Your task to perform on an android device: change keyboard looks Image 0: 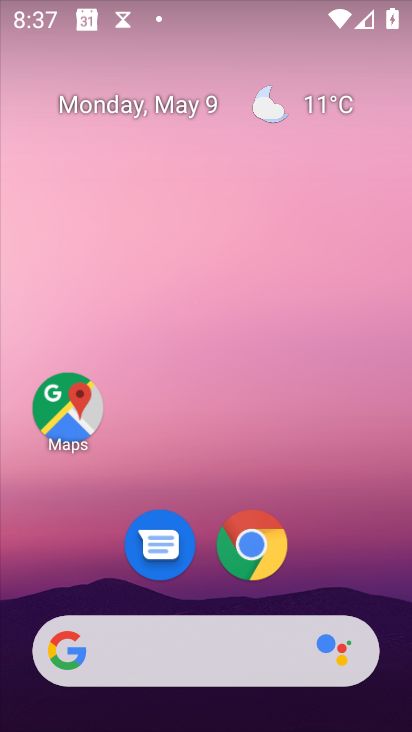
Step 0: drag from (219, 717) to (220, 223)
Your task to perform on an android device: change keyboard looks Image 1: 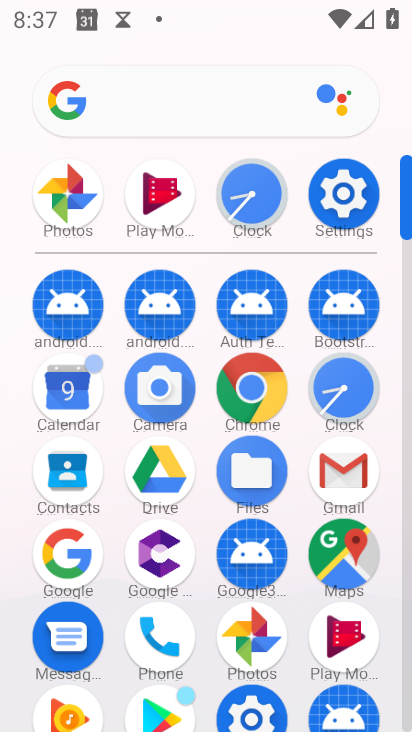
Step 1: click (341, 189)
Your task to perform on an android device: change keyboard looks Image 2: 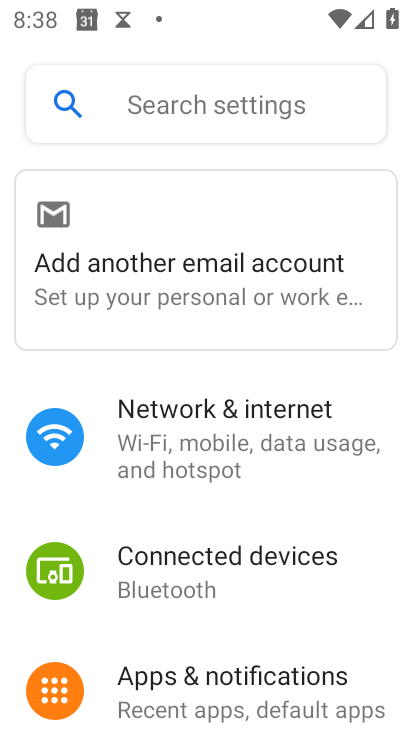
Step 2: drag from (252, 658) to (252, 320)
Your task to perform on an android device: change keyboard looks Image 3: 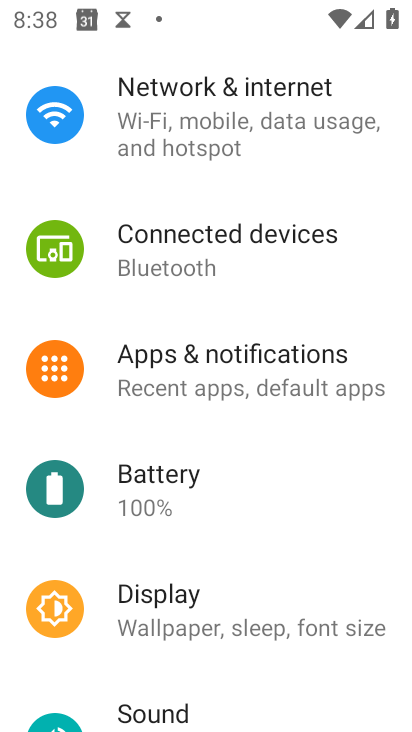
Step 3: drag from (236, 672) to (223, 345)
Your task to perform on an android device: change keyboard looks Image 4: 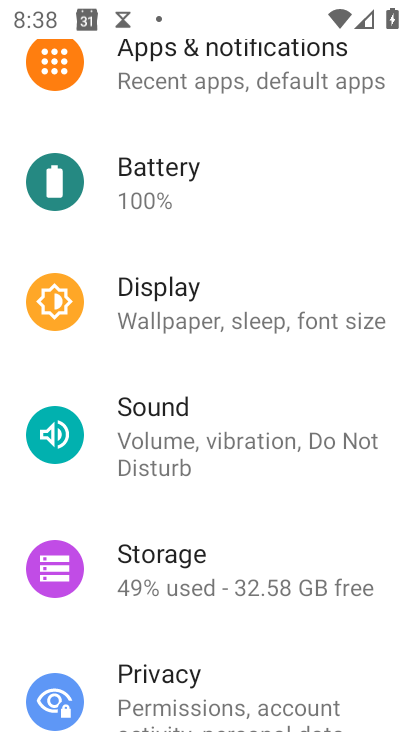
Step 4: drag from (211, 665) to (189, 283)
Your task to perform on an android device: change keyboard looks Image 5: 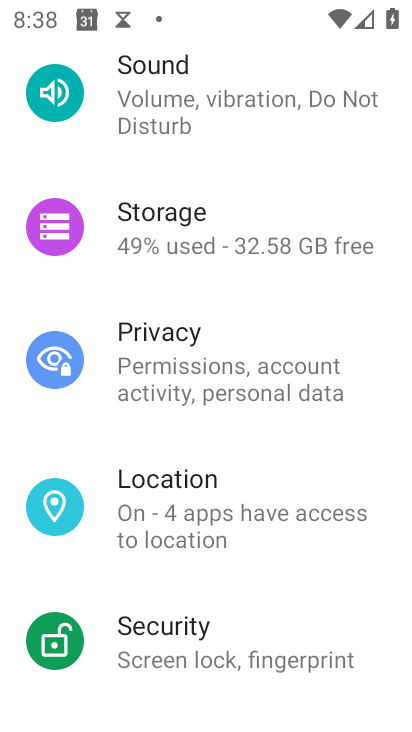
Step 5: drag from (196, 680) to (183, 342)
Your task to perform on an android device: change keyboard looks Image 6: 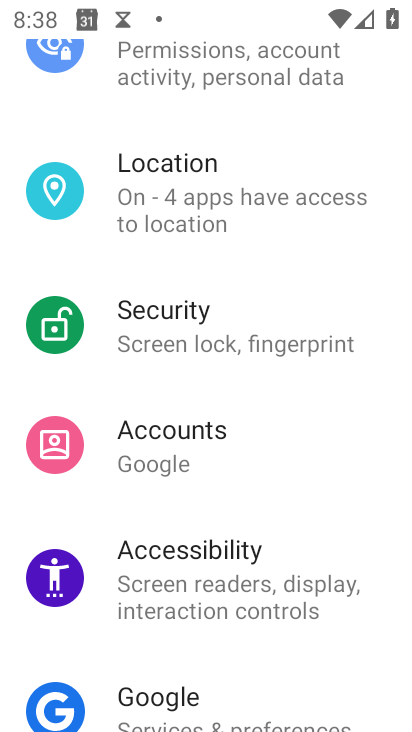
Step 6: drag from (199, 671) to (199, 276)
Your task to perform on an android device: change keyboard looks Image 7: 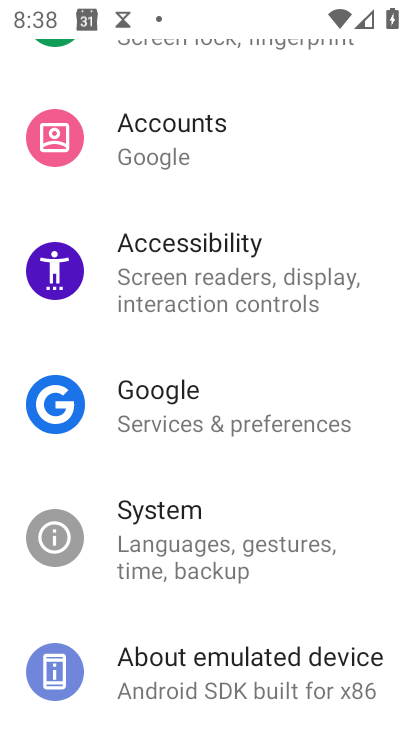
Step 7: click (197, 517)
Your task to perform on an android device: change keyboard looks Image 8: 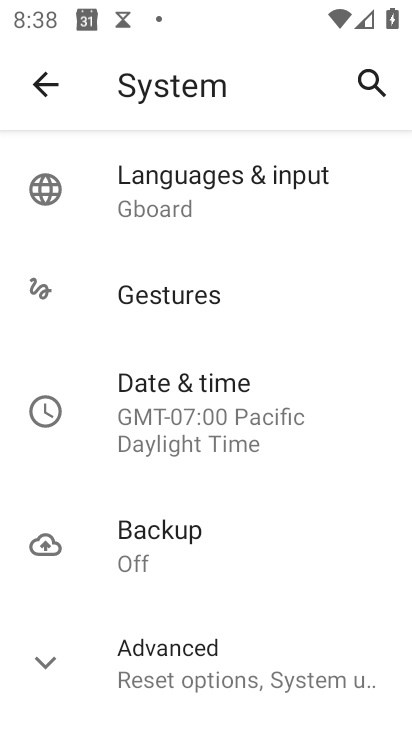
Step 8: click (196, 177)
Your task to perform on an android device: change keyboard looks Image 9: 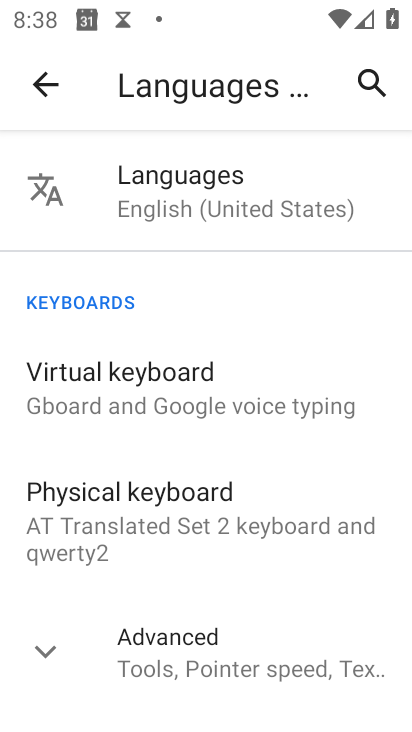
Step 9: drag from (215, 612) to (215, 370)
Your task to perform on an android device: change keyboard looks Image 10: 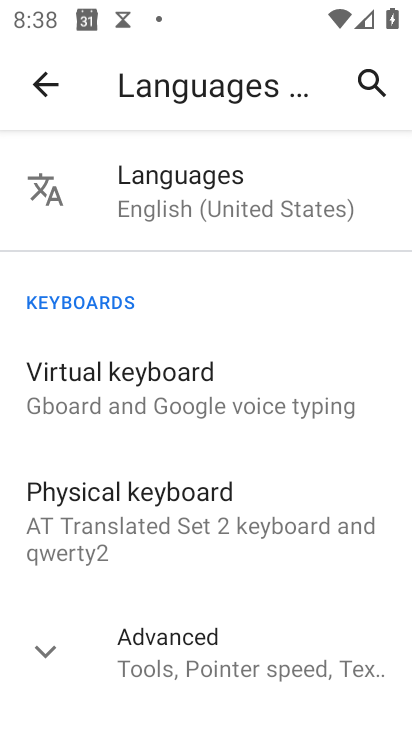
Step 10: click (157, 388)
Your task to perform on an android device: change keyboard looks Image 11: 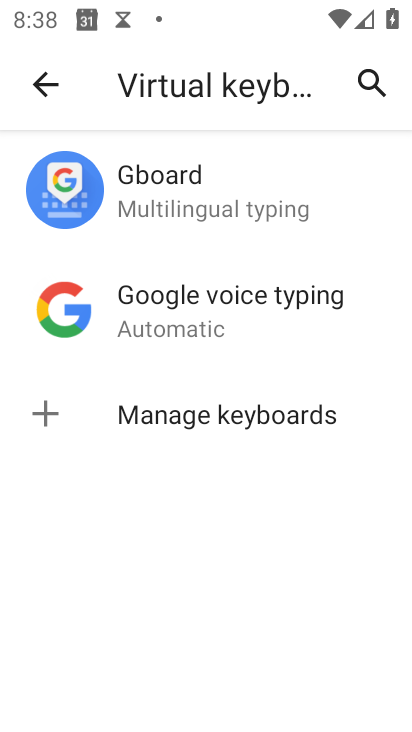
Step 11: click (167, 201)
Your task to perform on an android device: change keyboard looks Image 12: 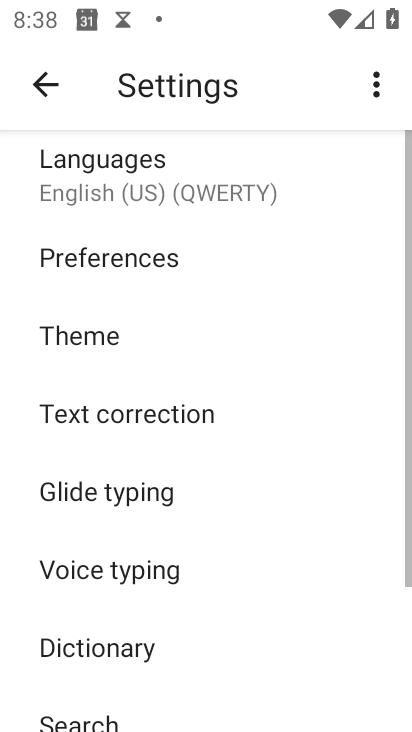
Step 12: click (83, 337)
Your task to perform on an android device: change keyboard looks Image 13: 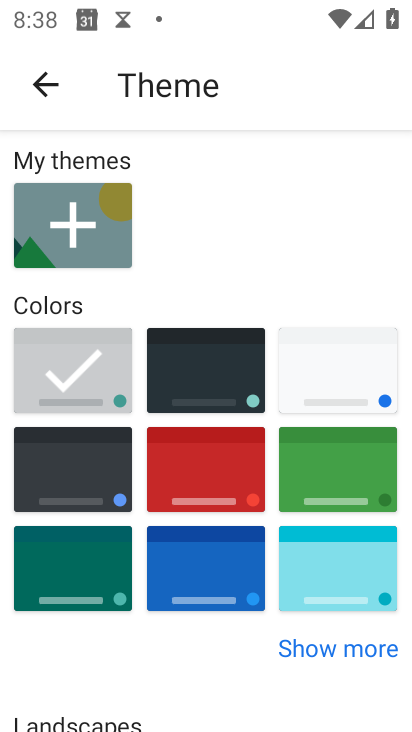
Step 13: click (197, 395)
Your task to perform on an android device: change keyboard looks Image 14: 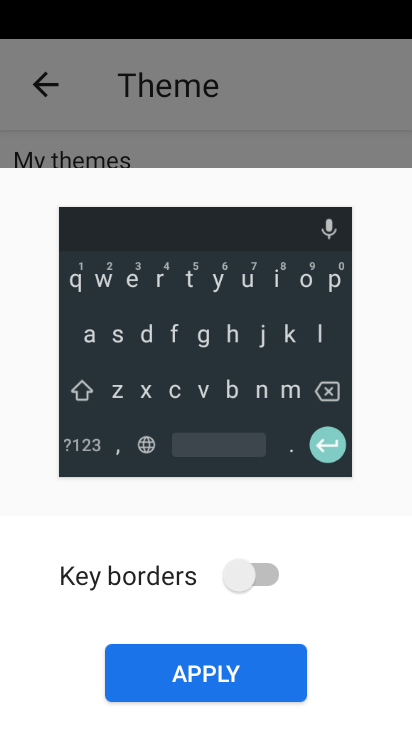
Step 14: click (263, 566)
Your task to perform on an android device: change keyboard looks Image 15: 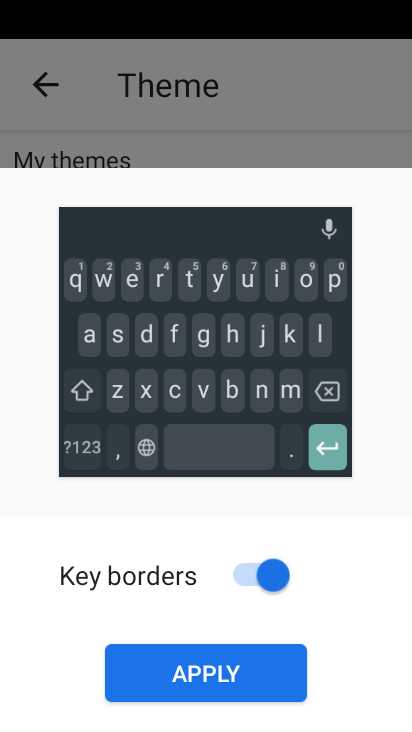
Step 15: click (244, 681)
Your task to perform on an android device: change keyboard looks Image 16: 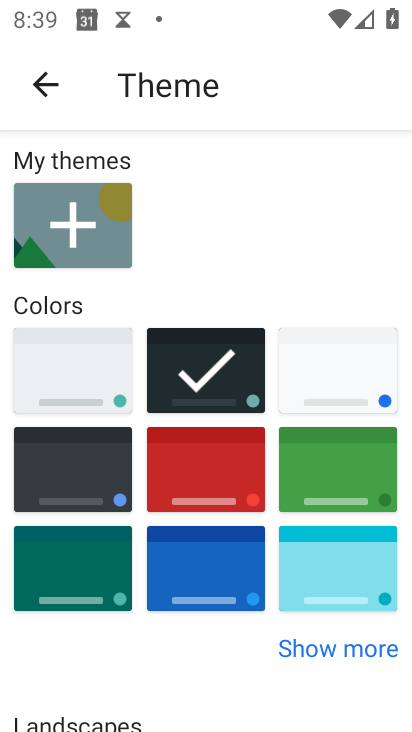
Step 16: task complete